Your task to perform on an android device: turn on translation in the chrome app Image 0: 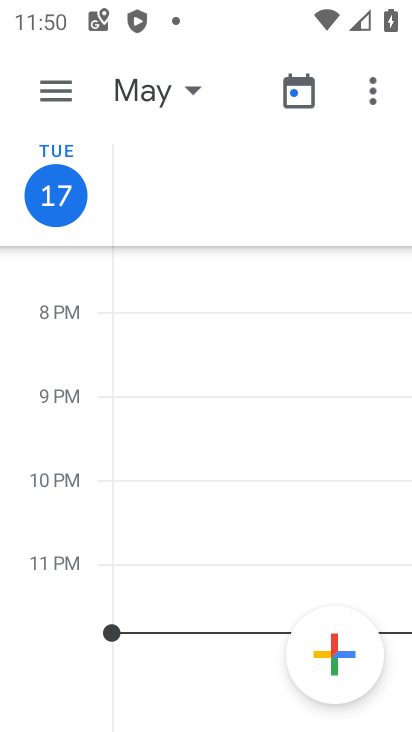
Step 0: press home button
Your task to perform on an android device: turn on translation in the chrome app Image 1: 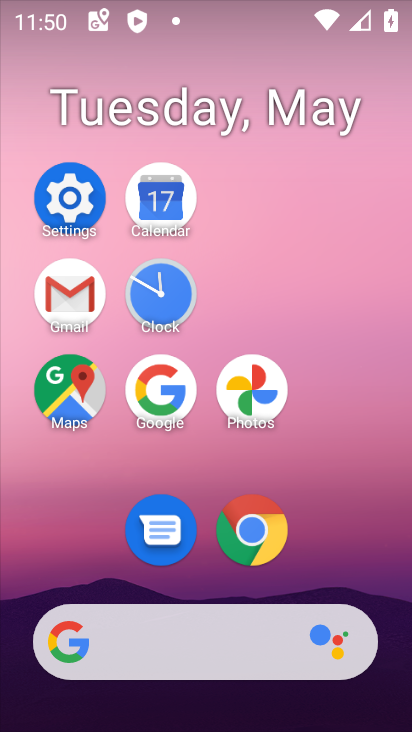
Step 1: click (261, 534)
Your task to perform on an android device: turn on translation in the chrome app Image 2: 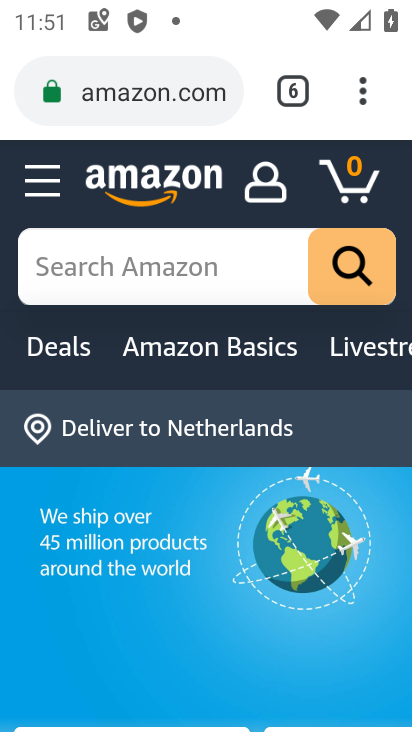
Step 2: click (367, 79)
Your task to perform on an android device: turn on translation in the chrome app Image 3: 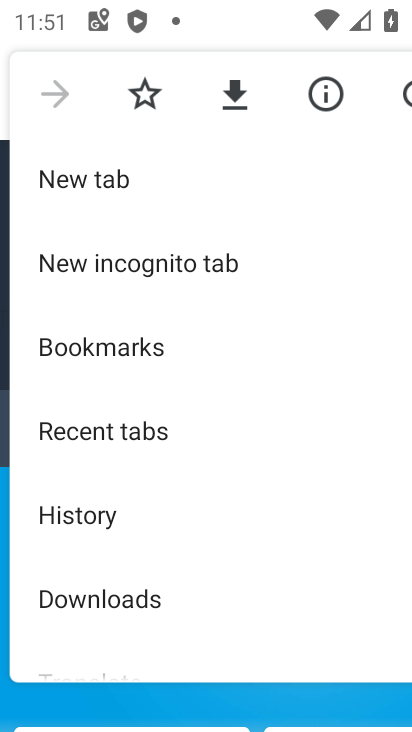
Step 3: drag from (198, 547) to (214, 123)
Your task to perform on an android device: turn on translation in the chrome app Image 4: 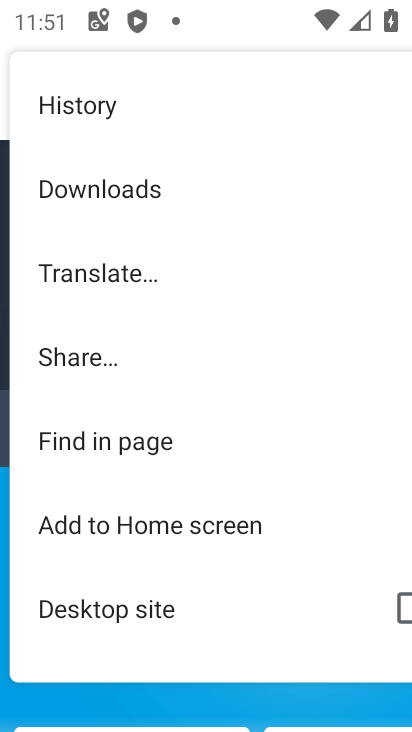
Step 4: drag from (206, 539) to (216, 195)
Your task to perform on an android device: turn on translation in the chrome app Image 5: 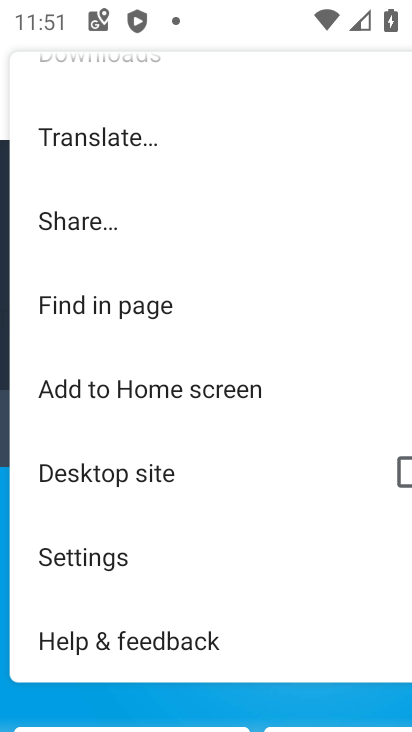
Step 5: click (142, 580)
Your task to perform on an android device: turn on translation in the chrome app Image 6: 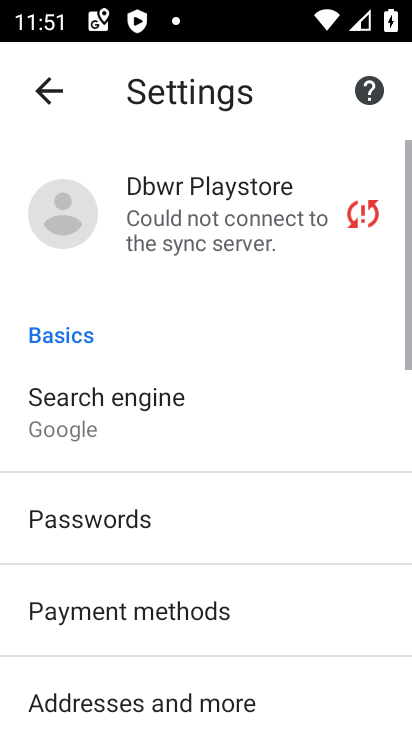
Step 6: drag from (142, 564) to (166, 159)
Your task to perform on an android device: turn on translation in the chrome app Image 7: 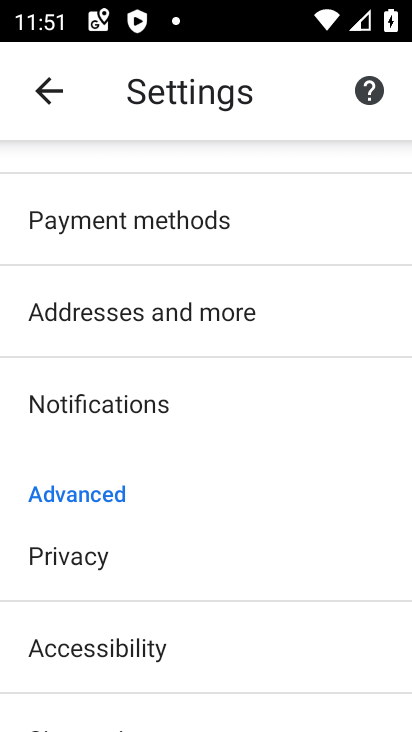
Step 7: drag from (249, 651) to (267, 153)
Your task to perform on an android device: turn on translation in the chrome app Image 8: 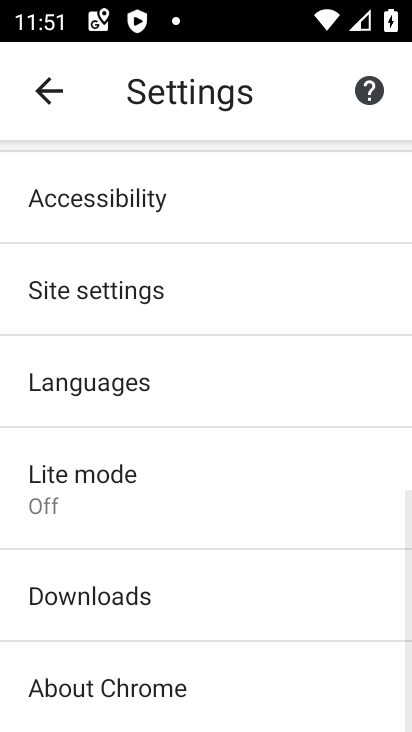
Step 8: click (184, 411)
Your task to perform on an android device: turn on translation in the chrome app Image 9: 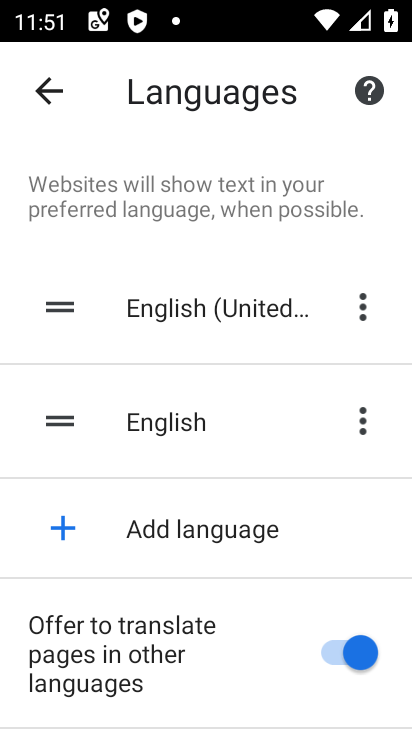
Step 9: task complete